Your task to perform on an android device: When is my next meeting? Image 0: 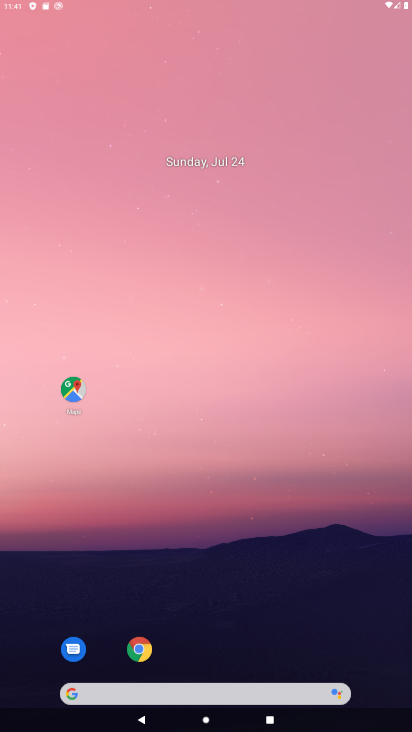
Step 0: drag from (392, 474) to (237, 313)
Your task to perform on an android device: When is my next meeting? Image 1: 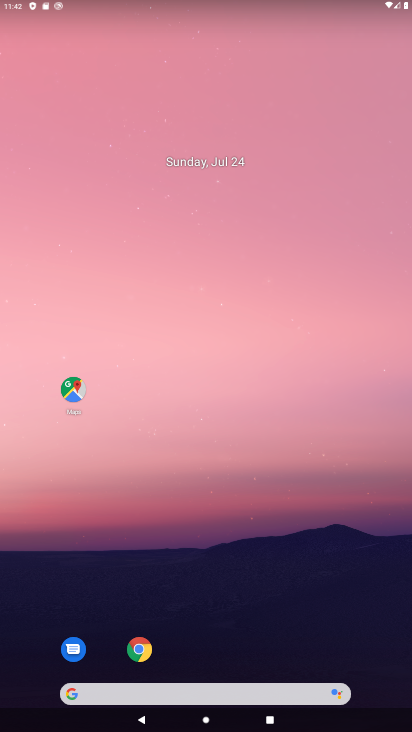
Step 1: drag from (259, 673) to (154, 94)
Your task to perform on an android device: When is my next meeting? Image 2: 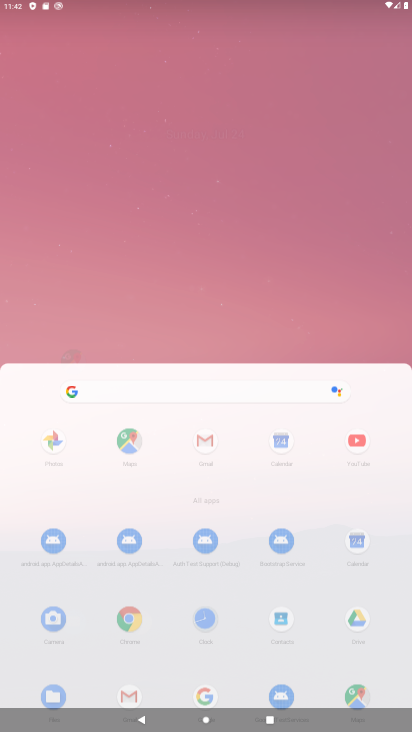
Step 2: drag from (135, 319) to (138, 168)
Your task to perform on an android device: When is my next meeting? Image 3: 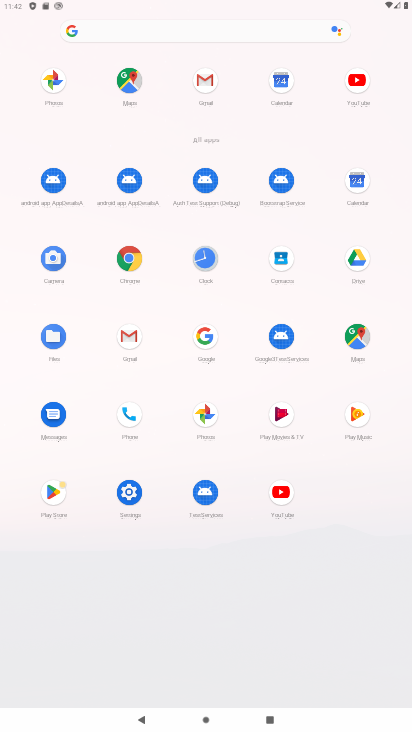
Step 3: drag from (222, 489) to (239, 49)
Your task to perform on an android device: When is my next meeting? Image 4: 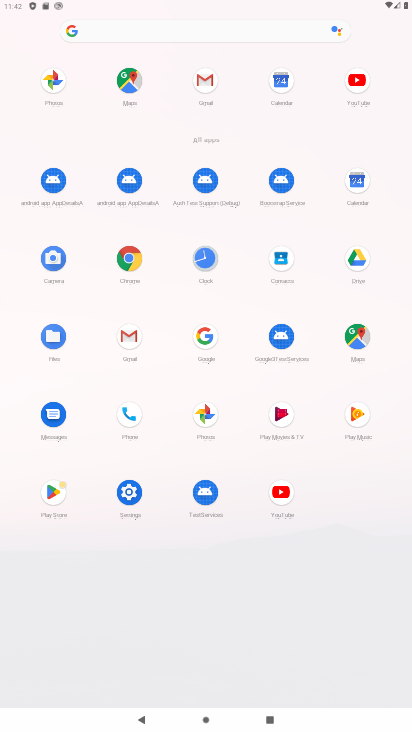
Step 4: click (367, 190)
Your task to perform on an android device: When is my next meeting? Image 5: 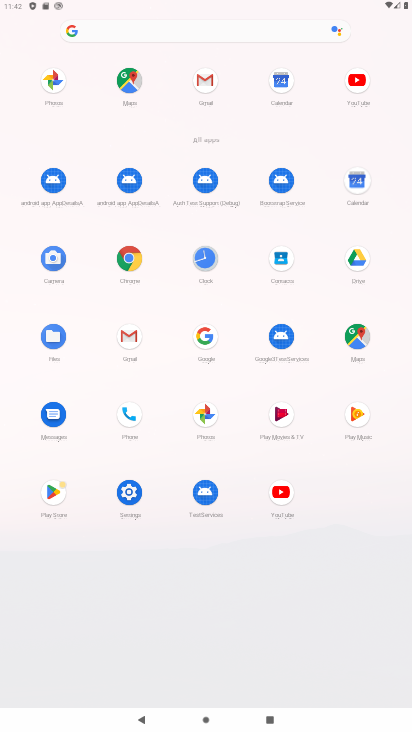
Step 5: click (364, 188)
Your task to perform on an android device: When is my next meeting? Image 6: 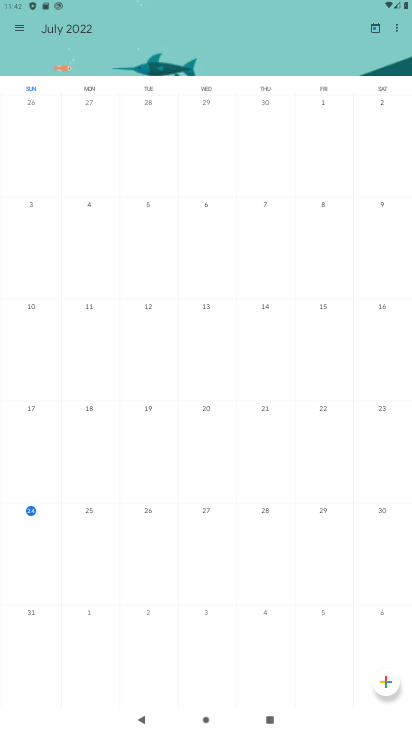
Step 6: task complete